Your task to perform on an android device: Open Reddit.com Image 0: 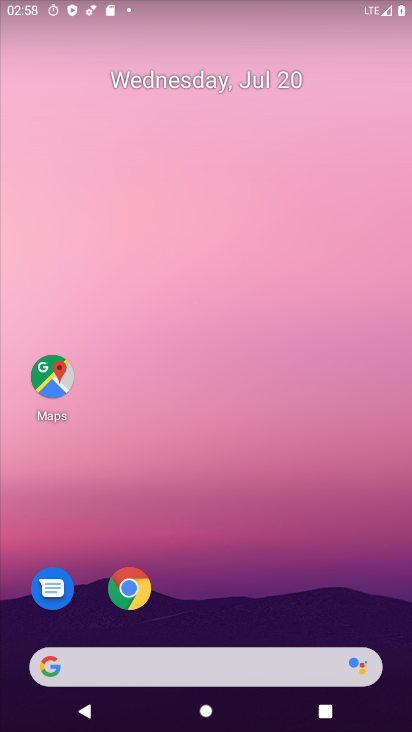
Step 0: drag from (205, 560) to (213, 139)
Your task to perform on an android device: Open Reddit.com Image 1: 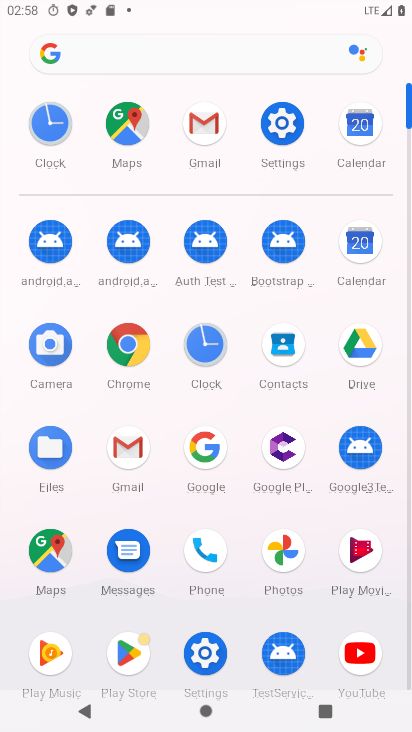
Step 1: click (184, 47)
Your task to perform on an android device: Open Reddit.com Image 2: 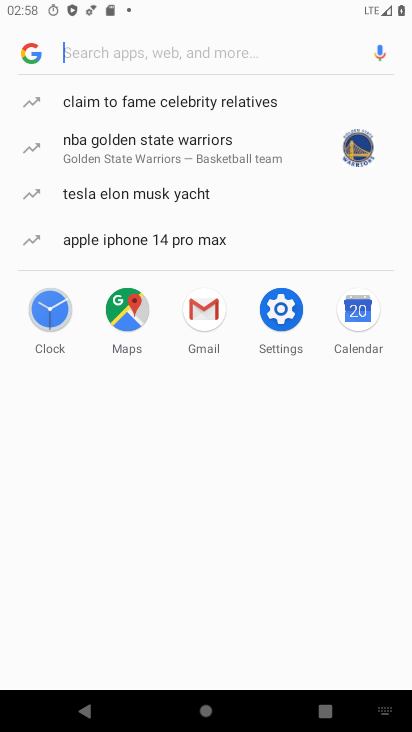
Step 2: type "Reddit.com"
Your task to perform on an android device: Open Reddit.com Image 3: 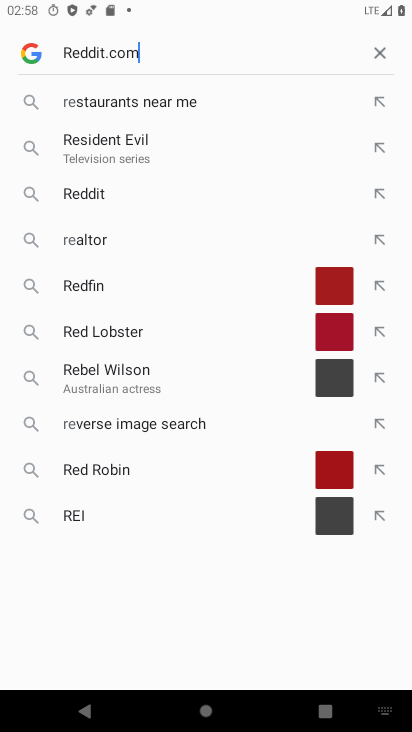
Step 3: type ""
Your task to perform on an android device: Open Reddit.com Image 4: 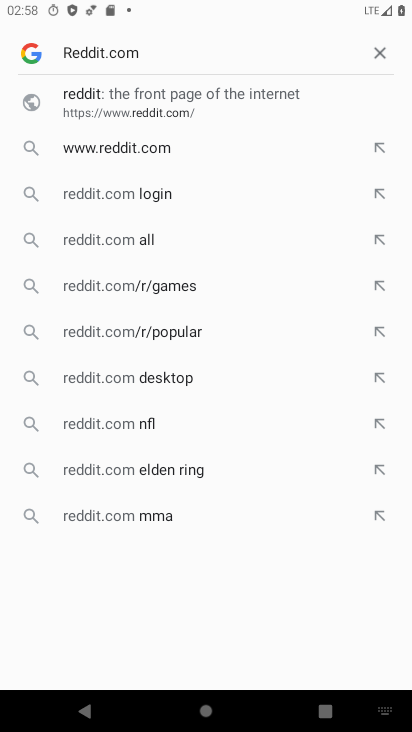
Step 4: click (116, 152)
Your task to perform on an android device: Open Reddit.com Image 5: 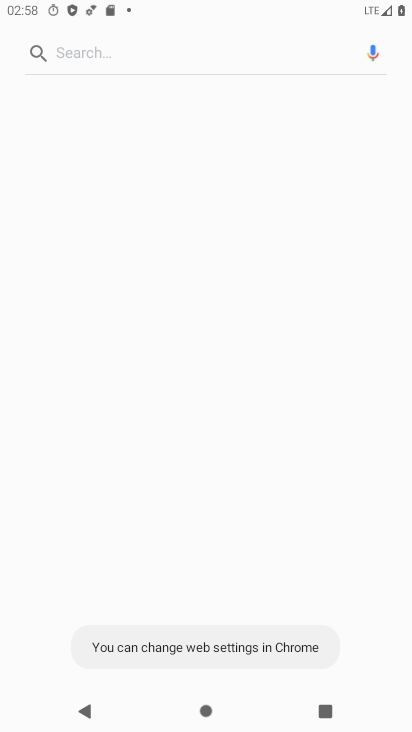
Step 5: task complete